Your task to perform on an android device: check battery use Image 0: 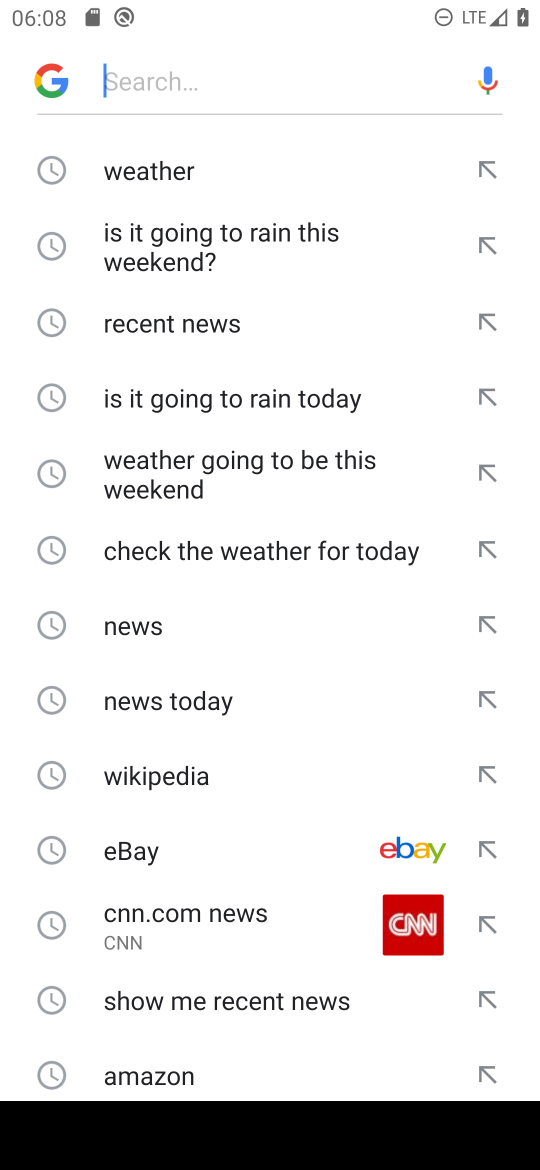
Step 0: press home button
Your task to perform on an android device: check battery use Image 1: 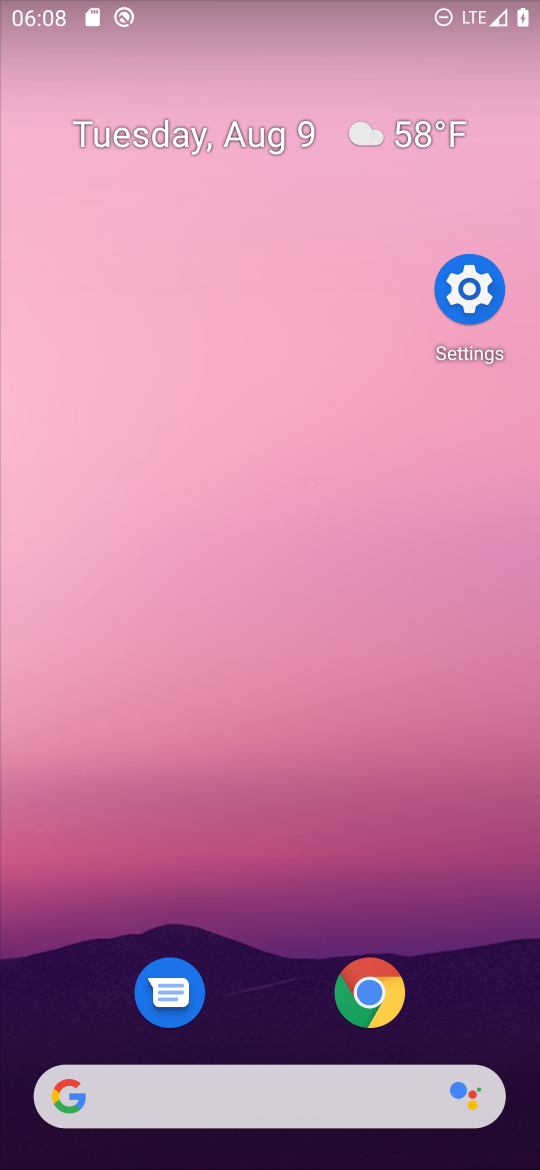
Step 1: drag from (247, 1099) to (214, 0)
Your task to perform on an android device: check battery use Image 2: 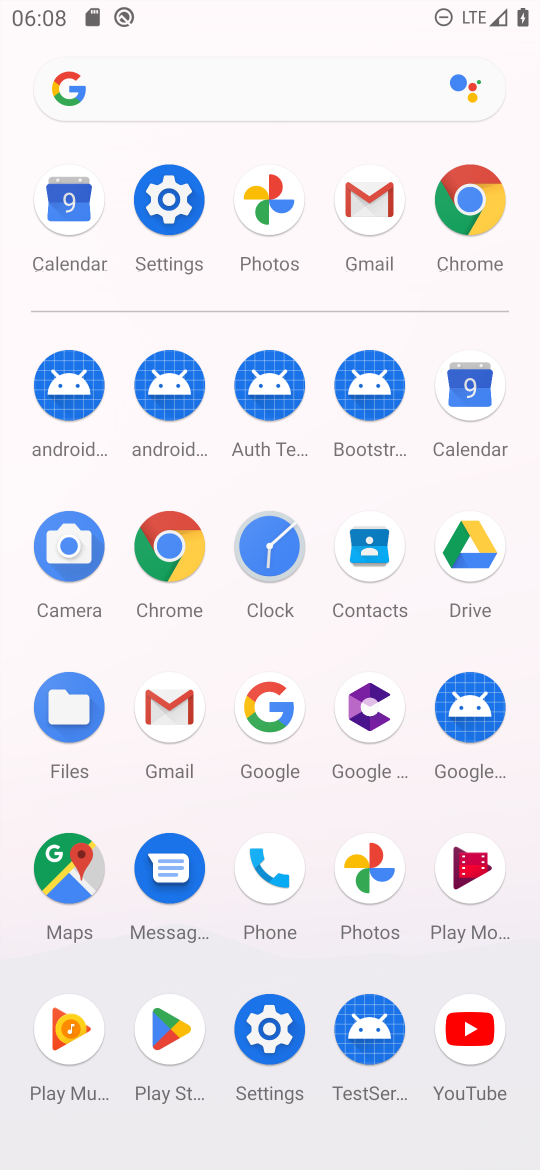
Step 2: click (184, 192)
Your task to perform on an android device: check battery use Image 3: 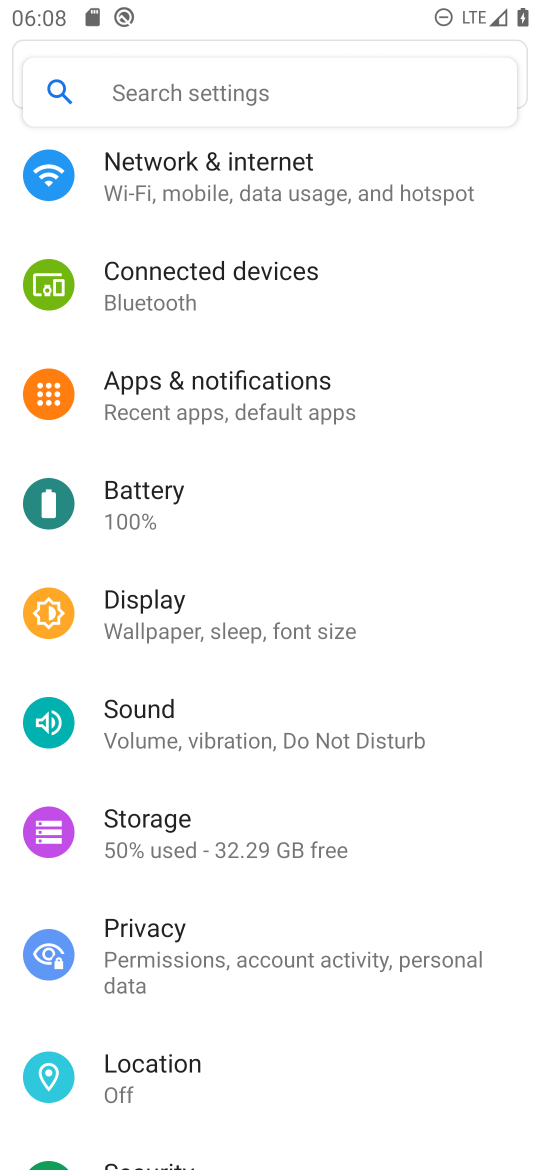
Step 3: click (209, 505)
Your task to perform on an android device: check battery use Image 4: 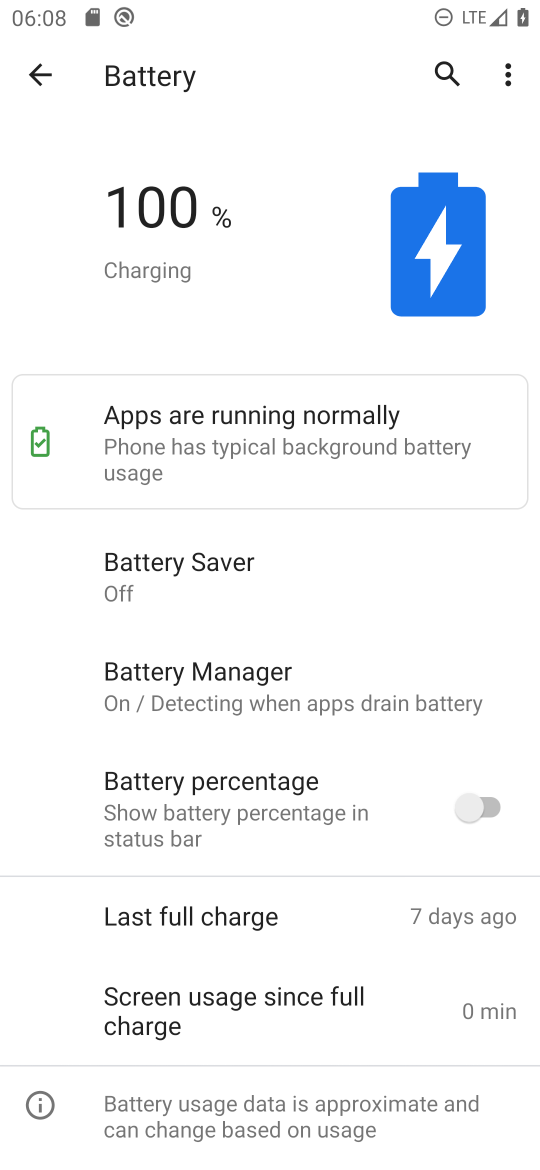
Step 4: task complete